Your task to perform on an android device: What is the news today? Image 0: 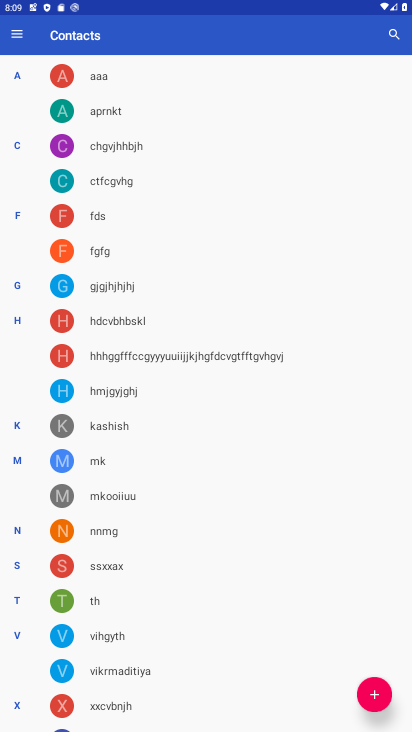
Step 0: press home button
Your task to perform on an android device: What is the news today? Image 1: 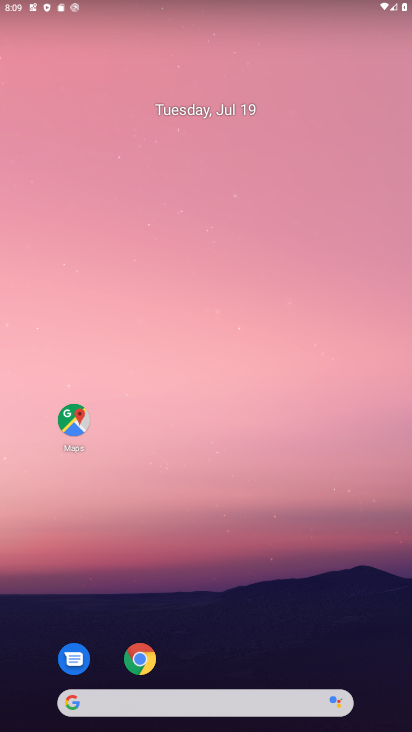
Step 1: drag from (178, 664) to (179, 270)
Your task to perform on an android device: What is the news today? Image 2: 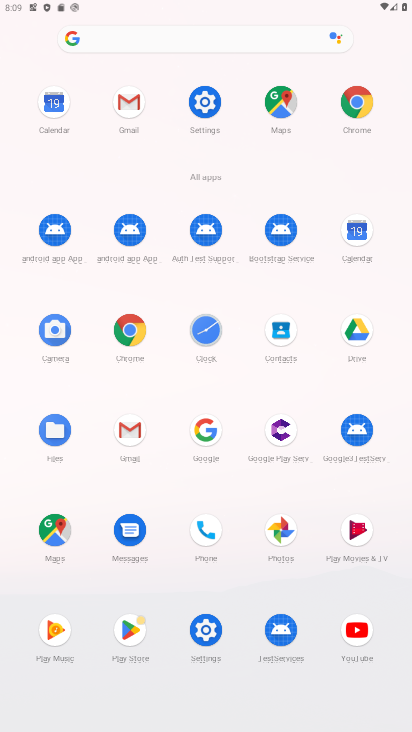
Step 2: click (200, 429)
Your task to perform on an android device: What is the news today? Image 3: 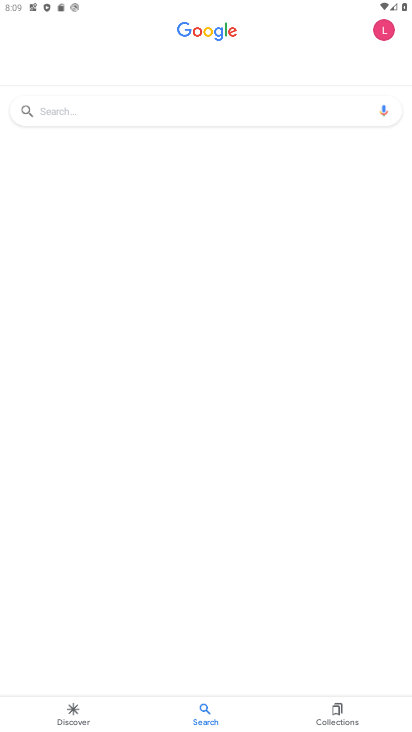
Step 3: click (74, 113)
Your task to perform on an android device: What is the news today? Image 4: 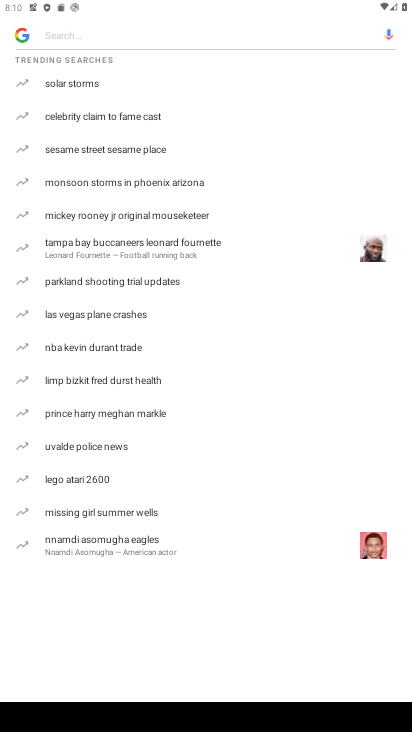
Step 4: type "What is the news today?"
Your task to perform on an android device: What is the news today? Image 5: 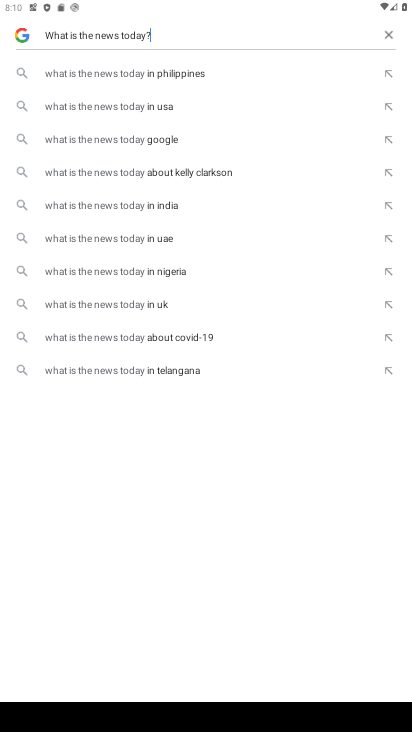
Step 5: click (103, 136)
Your task to perform on an android device: What is the news today? Image 6: 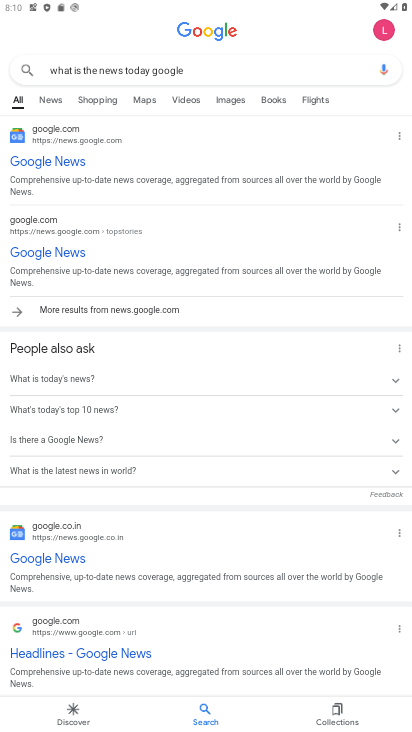
Step 6: click (56, 167)
Your task to perform on an android device: What is the news today? Image 7: 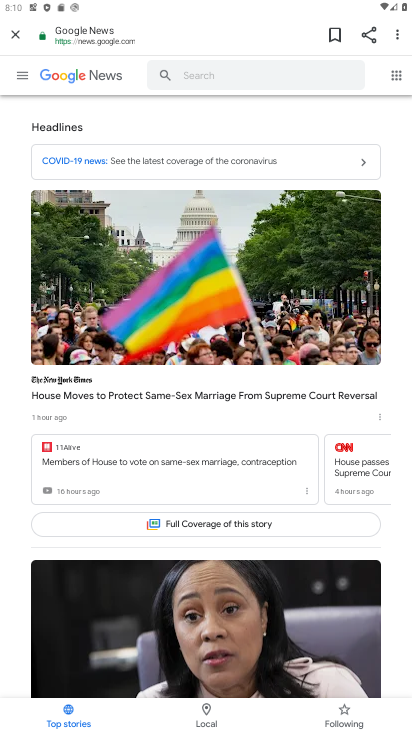
Step 7: task complete